Your task to perform on an android device: Show me recent news Image 0: 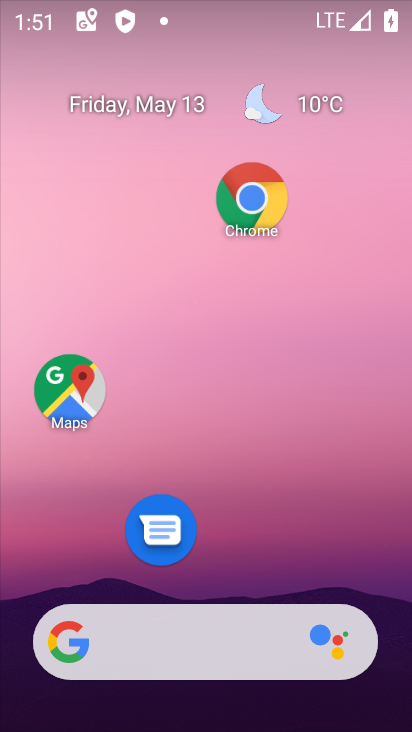
Step 0: click (210, 640)
Your task to perform on an android device: Show me recent news Image 1: 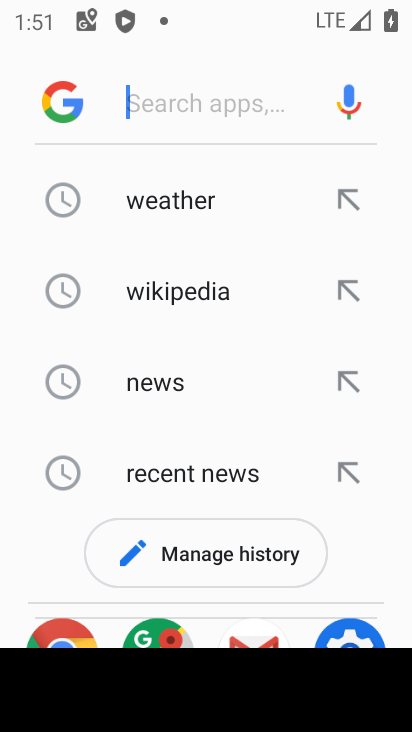
Step 1: click (156, 372)
Your task to perform on an android device: Show me recent news Image 2: 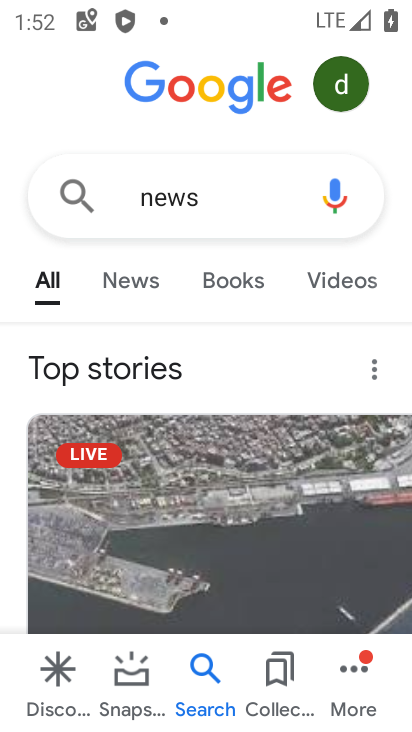
Step 2: click (114, 283)
Your task to perform on an android device: Show me recent news Image 3: 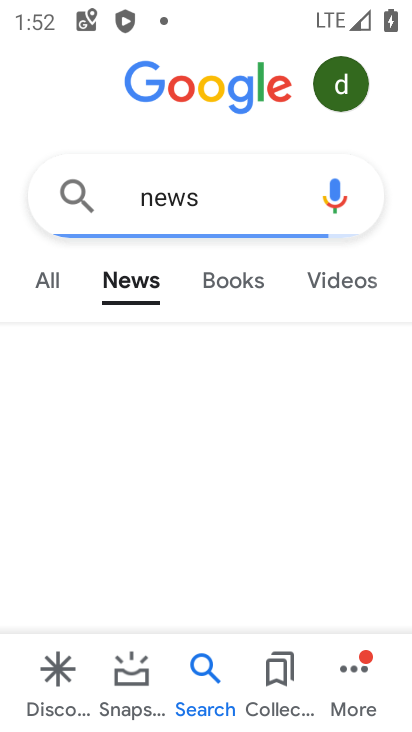
Step 3: task complete